Your task to perform on an android device: Search for usb-a to usb-b on target, select the first entry, and add it to the cart. Image 0: 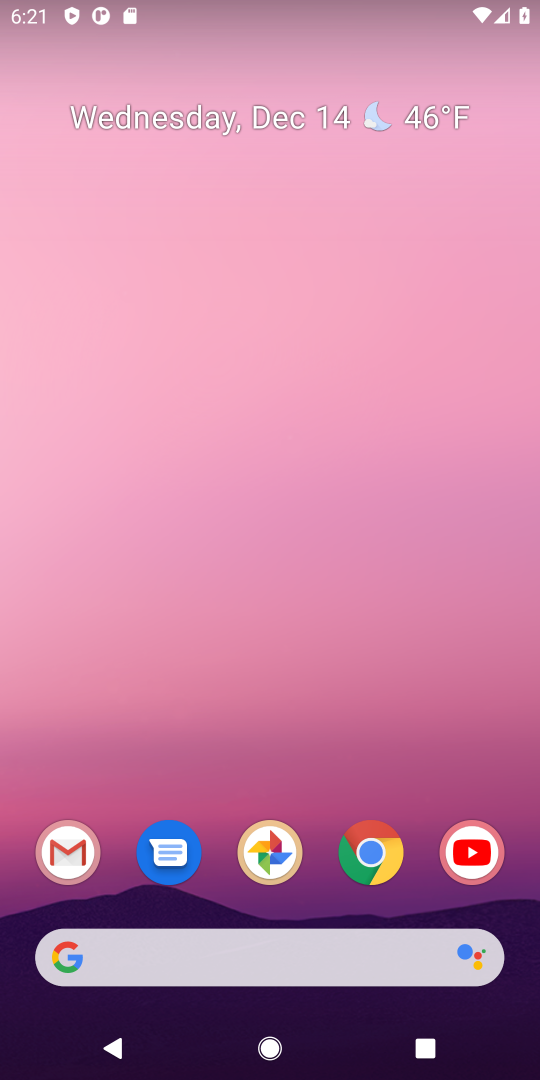
Step 0: click (388, 841)
Your task to perform on an android device: Search for usb-a to usb-b on target, select the first entry, and add it to the cart. Image 1: 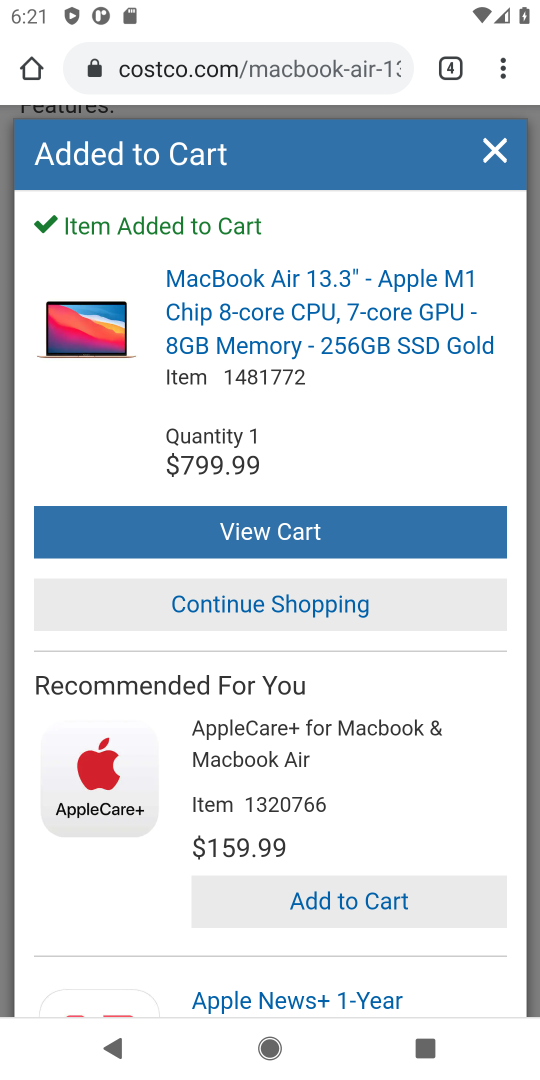
Step 1: click (450, 61)
Your task to perform on an android device: Search for usb-a to usb-b on target, select the first entry, and add it to the cart. Image 2: 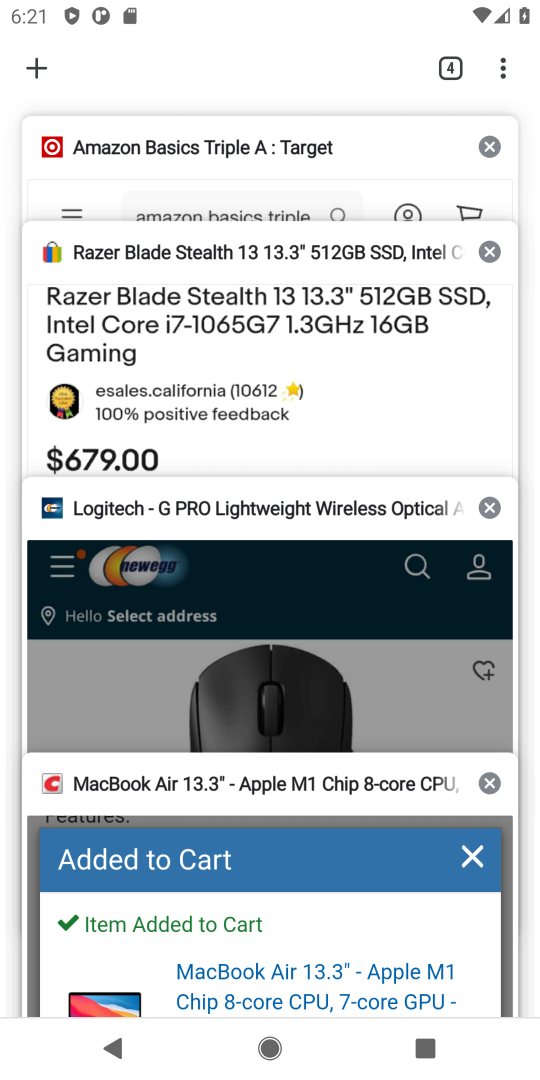
Step 2: click (287, 186)
Your task to perform on an android device: Search for usb-a to usb-b on target, select the first entry, and add it to the cart. Image 3: 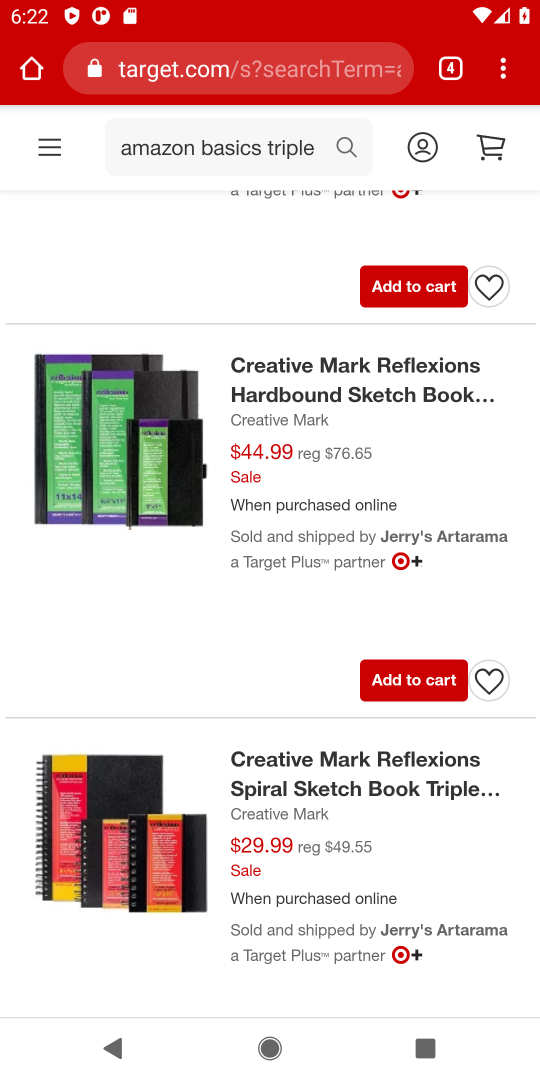
Step 3: click (264, 157)
Your task to perform on an android device: Search for usb-a to usb-b on target, select the first entry, and add it to the cart. Image 4: 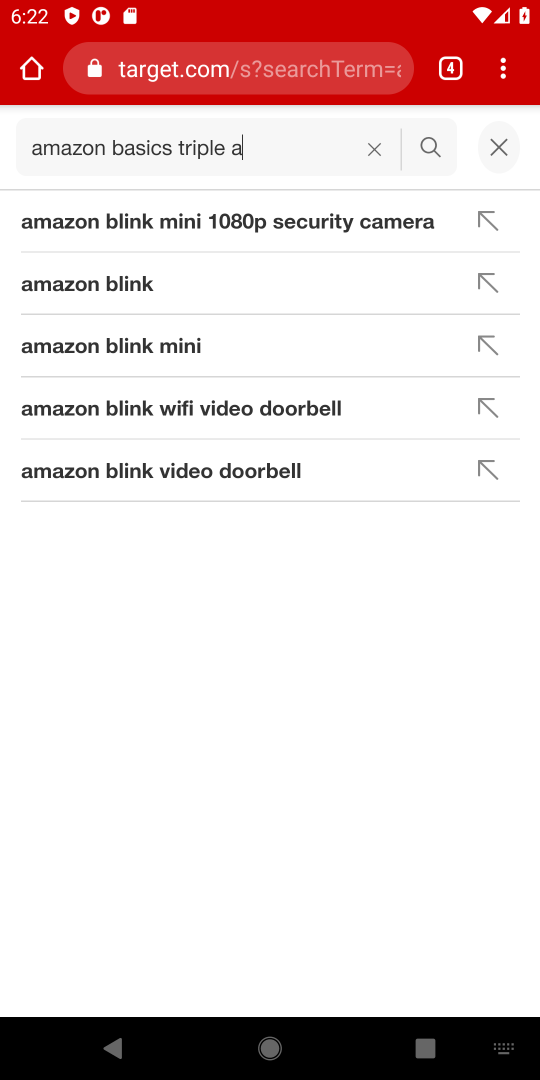
Step 4: click (371, 141)
Your task to perform on an android device: Search for usb-a to usb-b on target, select the first entry, and add it to the cart. Image 5: 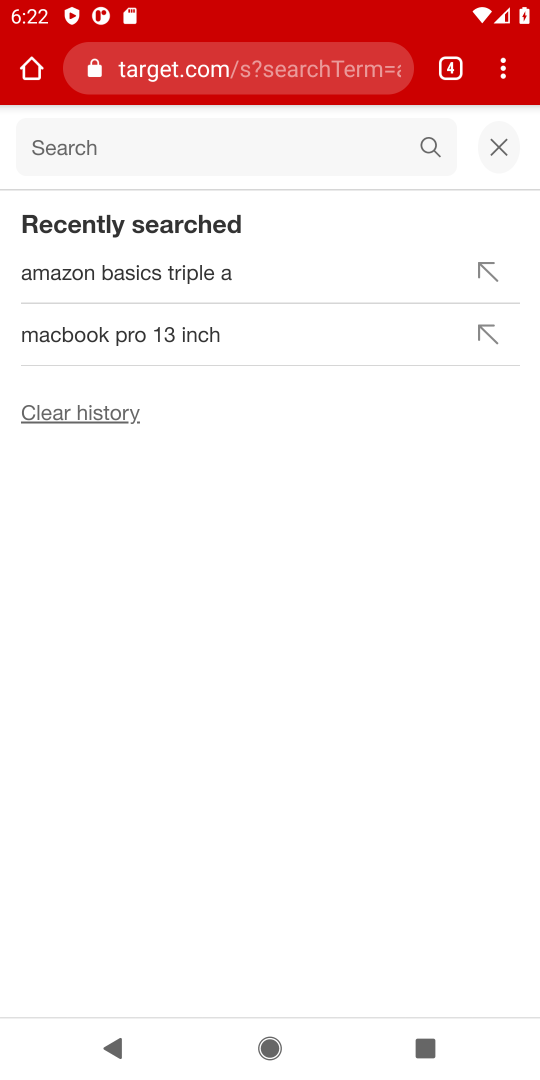
Step 5: type "usb-a to usb-b"
Your task to perform on an android device: Search for usb-a to usb-b on target, select the first entry, and add it to the cart. Image 6: 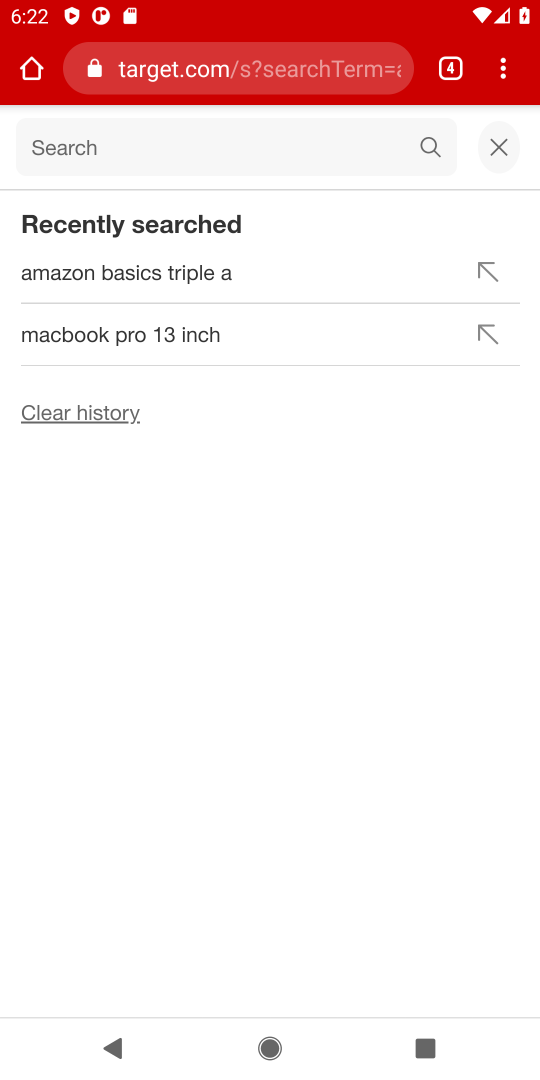
Step 6: click (157, 133)
Your task to perform on an android device: Search for usb-a to usb-b on target, select the first entry, and add it to the cart. Image 7: 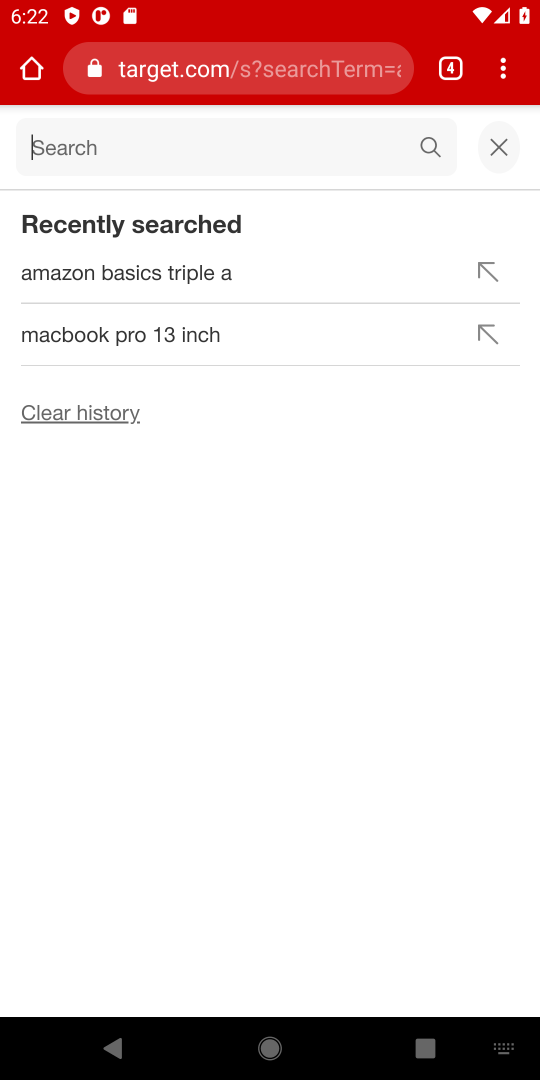
Step 7: type "usb-a to usb-b"
Your task to perform on an android device: Search for usb-a to usb-b on target, select the first entry, and add it to the cart. Image 8: 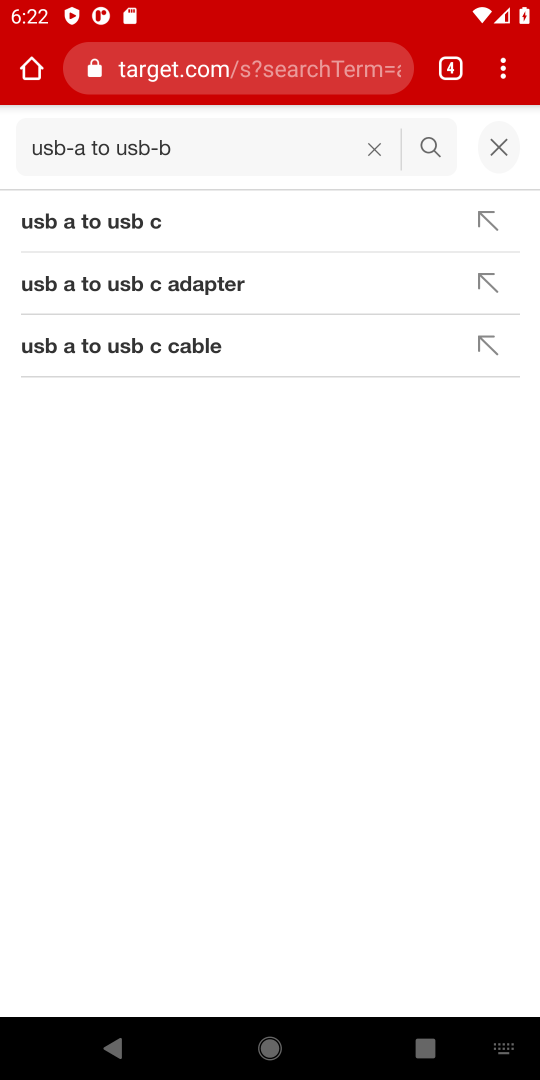
Step 8: click (434, 153)
Your task to perform on an android device: Search for usb-a to usb-b on target, select the first entry, and add it to the cart. Image 9: 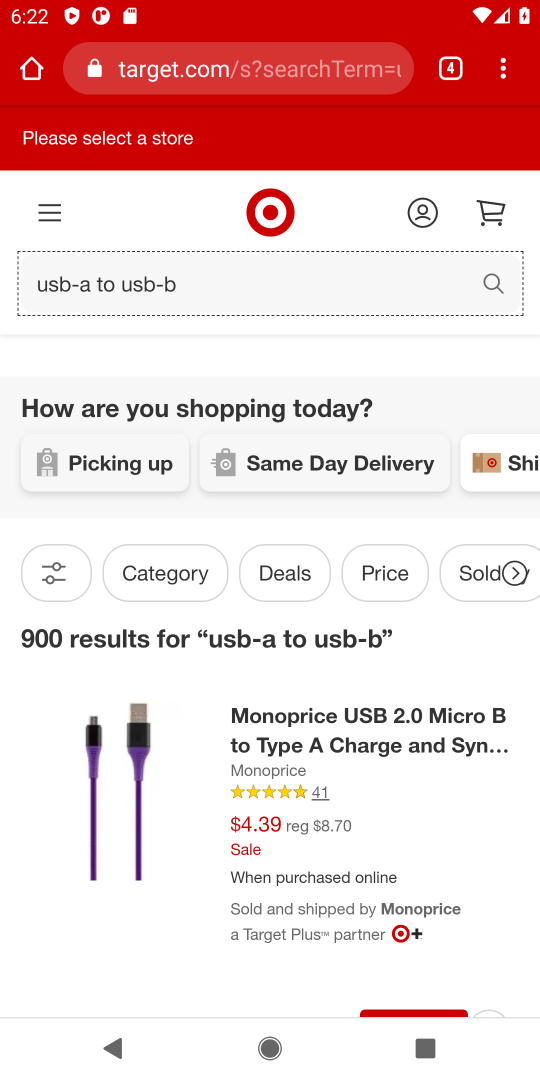
Step 9: drag from (423, 824) to (345, 76)
Your task to perform on an android device: Search for usb-a to usb-b on target, select the first entry, and add it to the cart. Image 10: 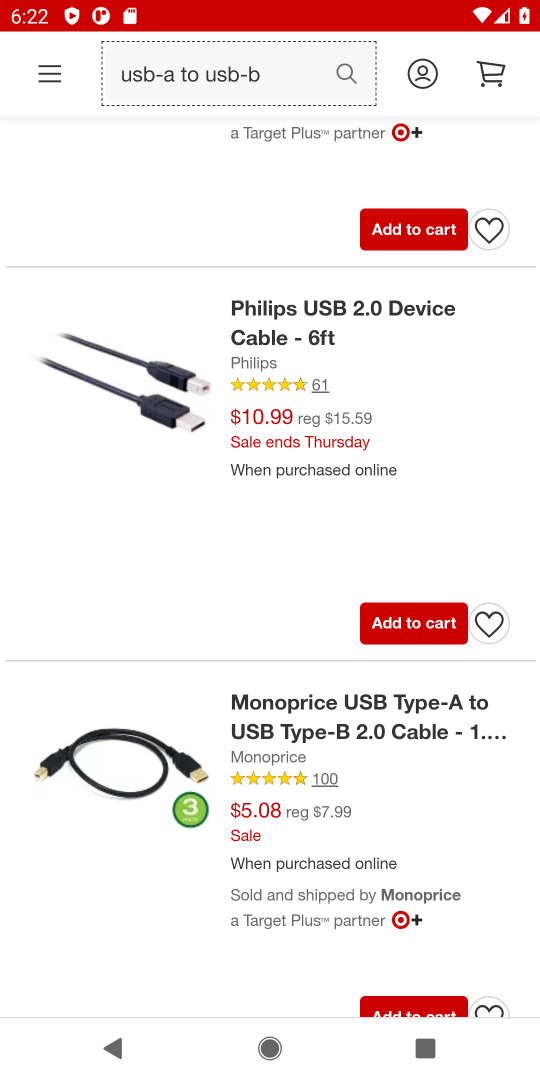
Step 10: drag from (417, 897) to (445, 568)
Your task to perform on an android device: Search for usb-a to usb-b on target, select the first entry, and add it to the cart. Image 11: 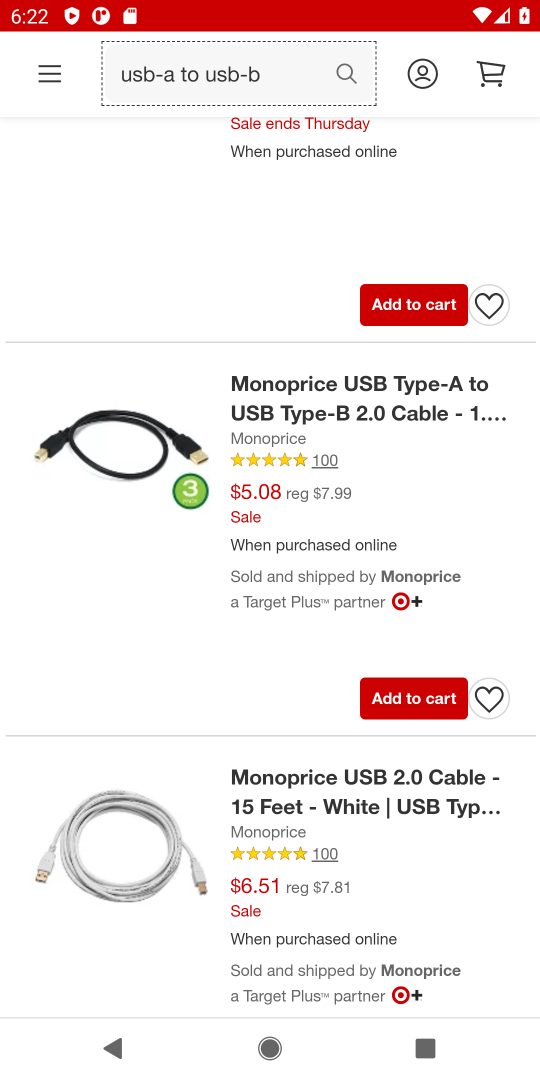
Step 11: click (408, 695)
Your task to perform on an android device: Search for usb-a to usb-b on target, select the first entry, and add it to the cart. Image 12: 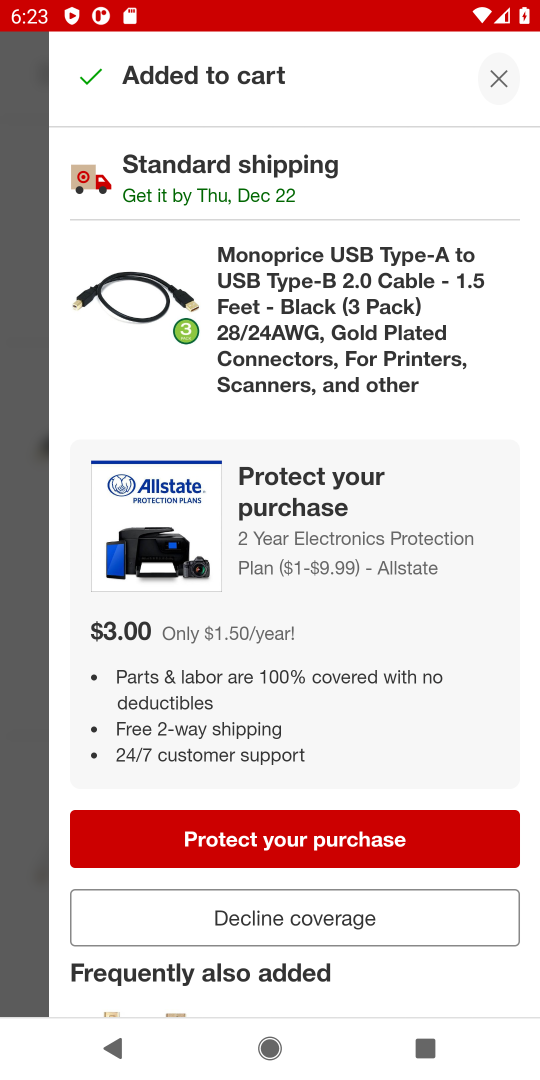
Step 12: task complete